Your task to perform on an android device: Search for pizza restaurants on Maps Image 0: 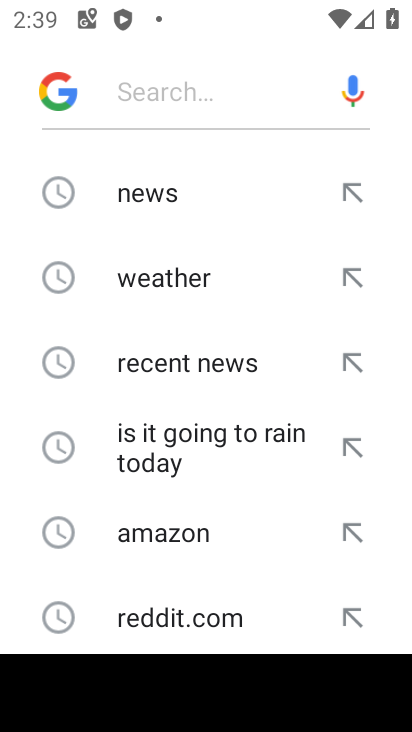
Step 0: press back button
Your task to perform on an android device: Search for pizza restaurants on Maps Image 1: 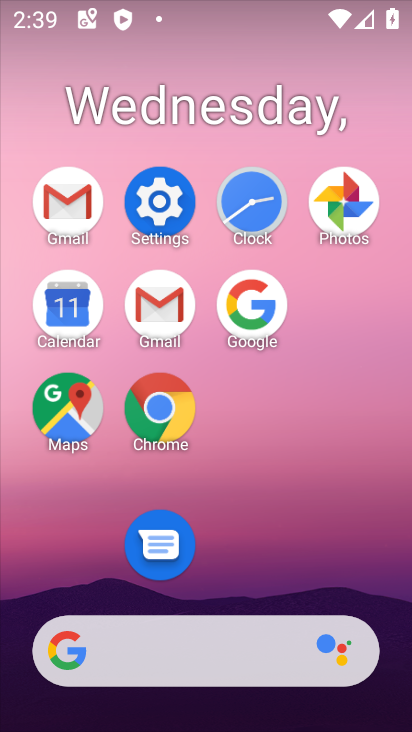
Step 1: click (78, 408)
Your task to perform on an android device: Search for pizza restaurants on Maps Image 2: 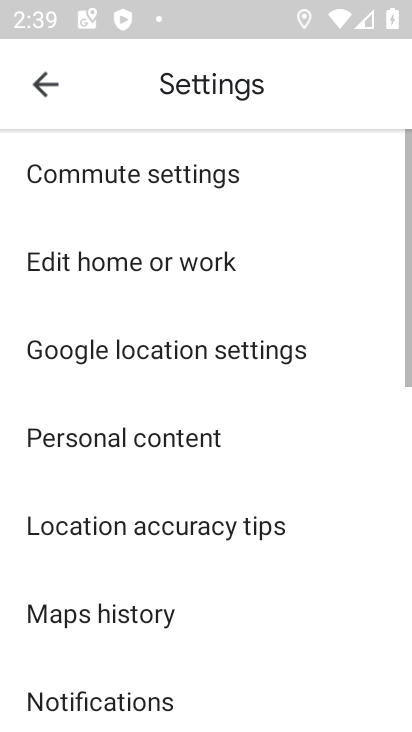
Step 2: click (52, 94)
Your task to perform on an android device: Search for pizza restaurants on Maps Image 3: 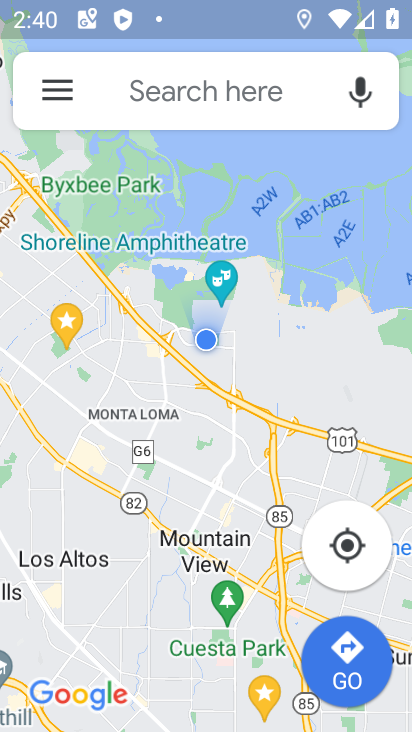
Step 3: click (204, 108)
Your task to perform on an android device: Search for pizza restaurants on Maps Image 4: 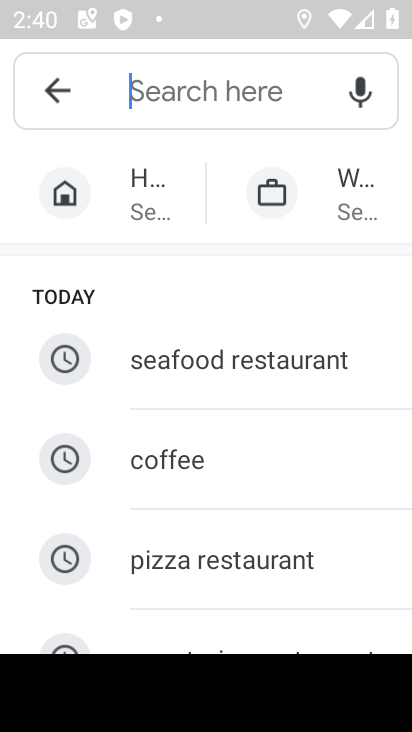
Step 4: click (241, 548)
Your task to perform on an android device: Search for pizza restaurants on Maps Image 5: 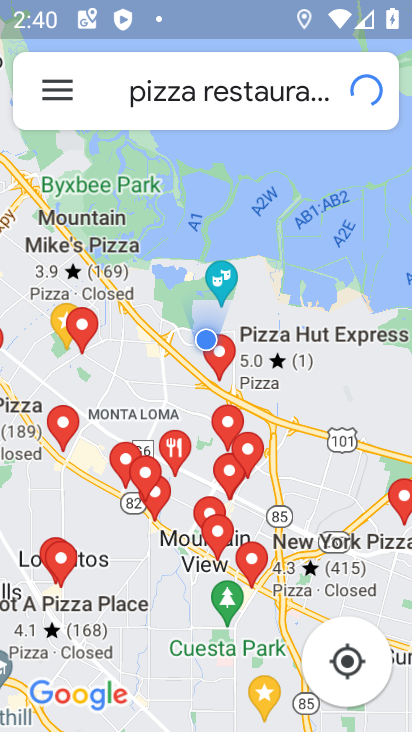
Step 5: task complete